Your task to perform on an android device: search for starred emails in the gmail app Image 0: 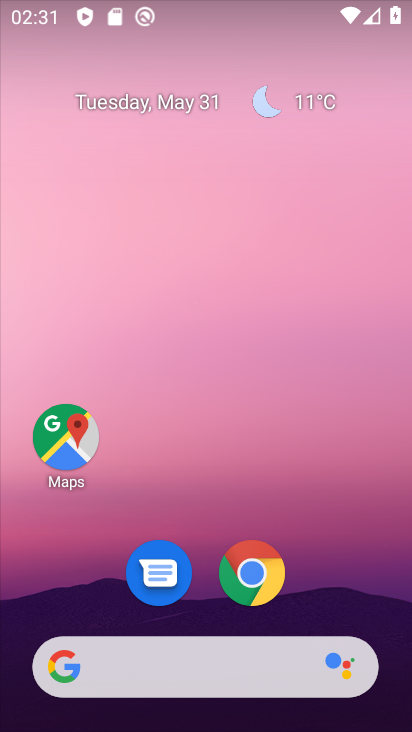
Step 0: drag from (356, 589) to (311, 37)
Your task to perform on an android device: search for starred emails in the gmail app Image 1: 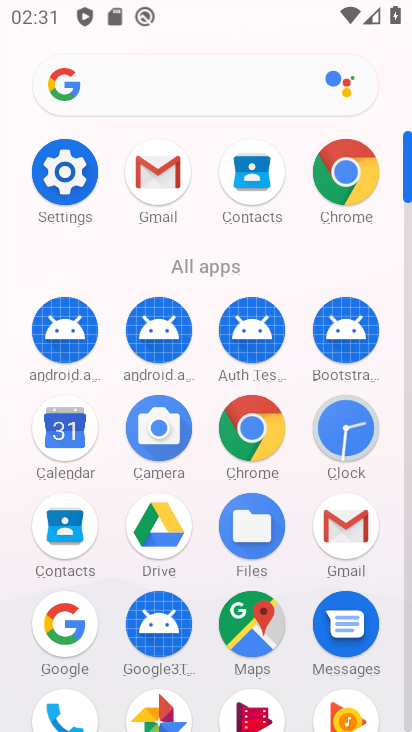
Step 1: click (154, 173)
Your task to perform on an android device: search for starred emails in the gmail app Image 2: 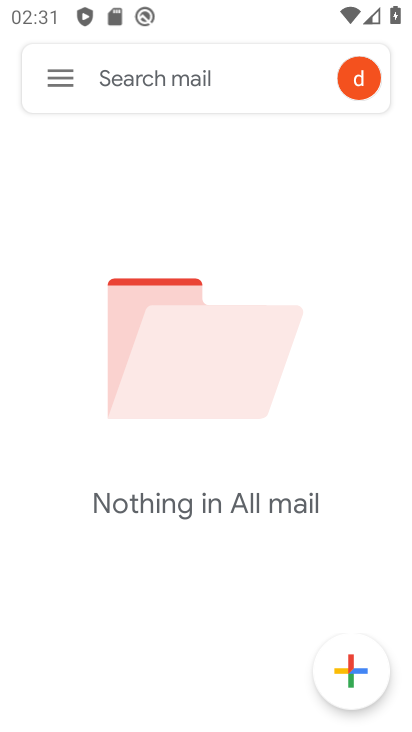
Step 2: click (67, 78)
Your task to perform on an android device: search for starred emails in the gmail app Image 3: 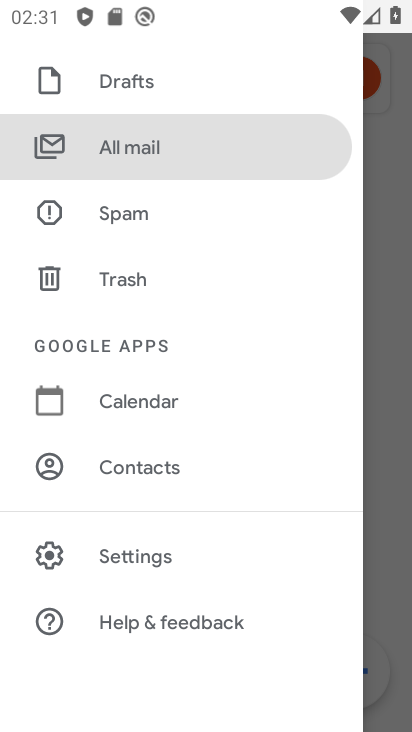
Step 3: drag from (121, 128) to (144, 664)
Your task to perform on an android device: search for starred emails in the gmail app Image 4: 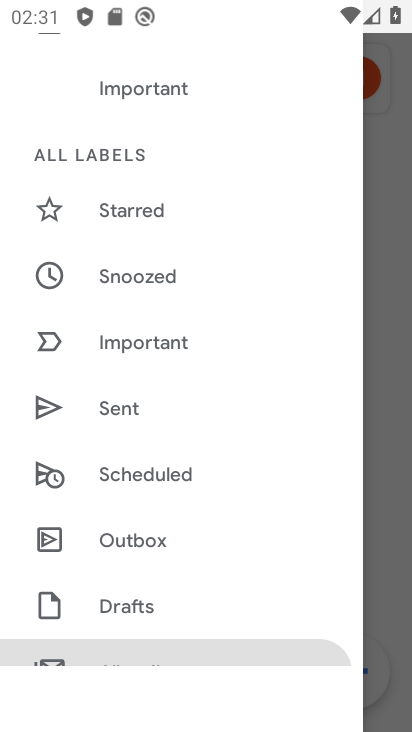
Step 4: click (148, 216)
Your task to perform on an android device: search for starred emails in the gmail app Image 5: 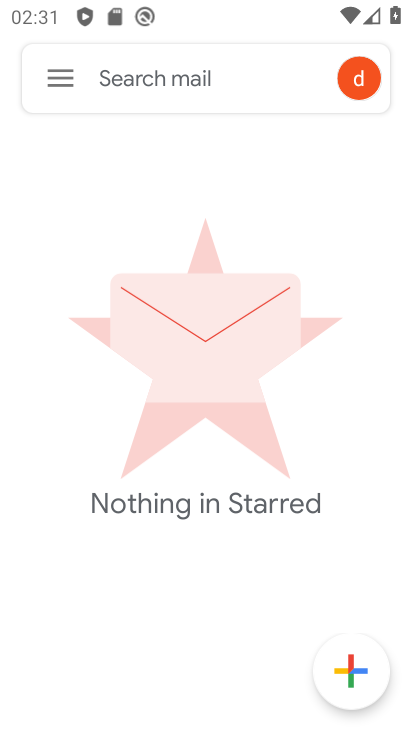
Step 5: task complete